Your task to perform on an android device: Open my contact list Image 0: 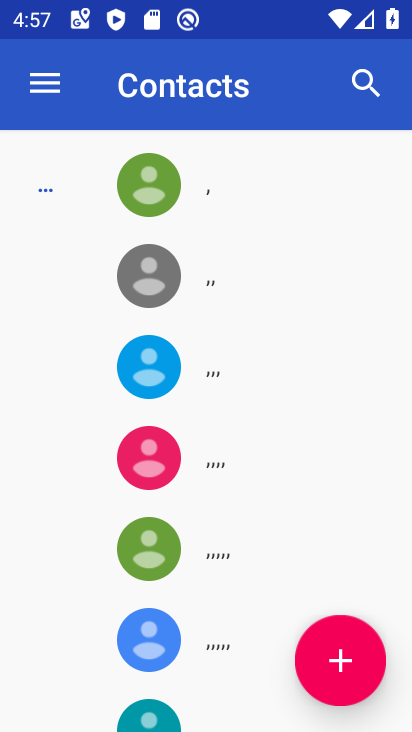
Step 0: drag from (194, 617) to (210, 71)
Your task to perform on an android device: Open my contact list Image 1: 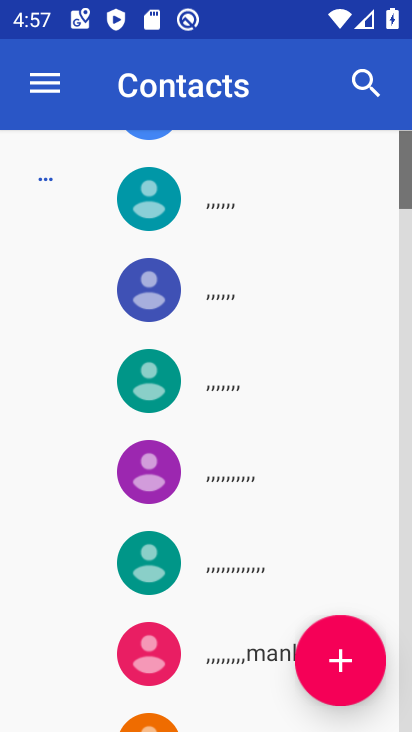
Step 1: task complete